Your task to perform on an android device: turn off sleep mode Image 0: 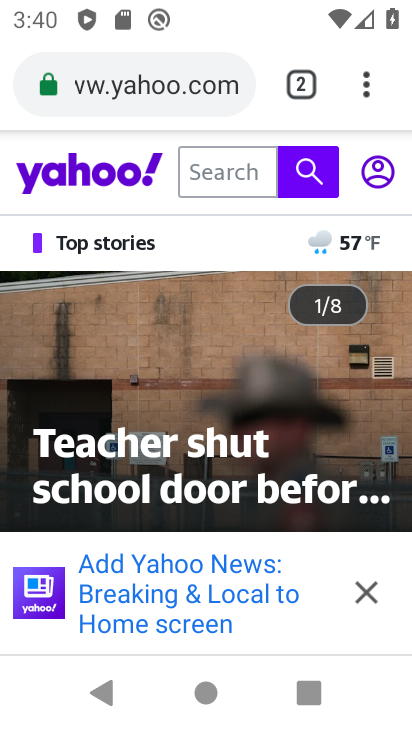
Step 0: press home button
Your task to perform on an android device: turn off sleep mode Image 1: 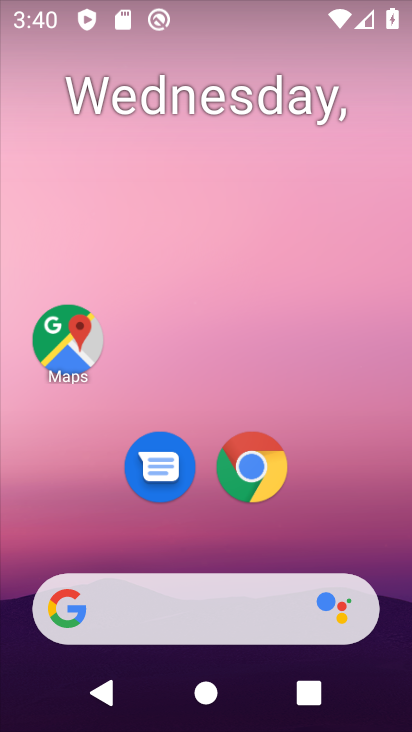
Step 1: drag from (312, 470) to (260, 28)
Your task to perform on an android device: turn off sleep mode Image 2: 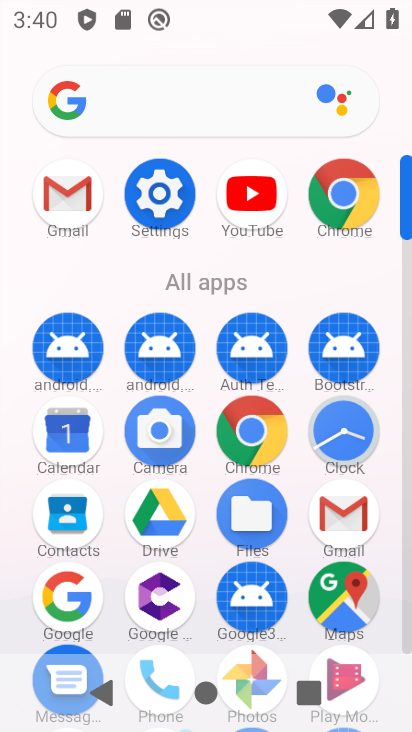
Step 2: click (160, 159)
Your task to perform on an android device: turn off sleep mode Image 3: 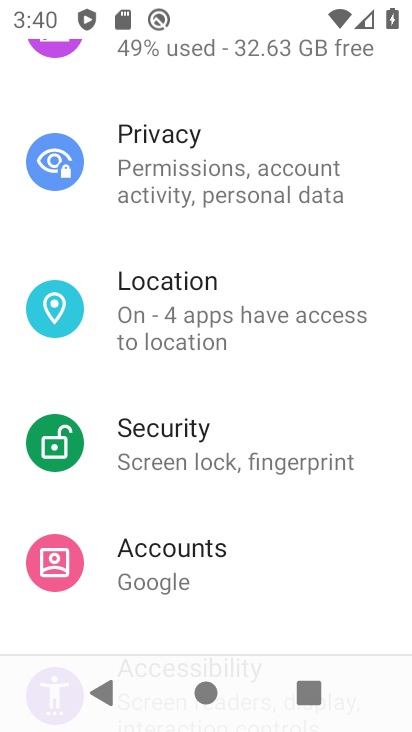
Step 3: drag from (300, 549) to (290, 82)
Your task to perform on an android device: turn off sleep mode Image 4: 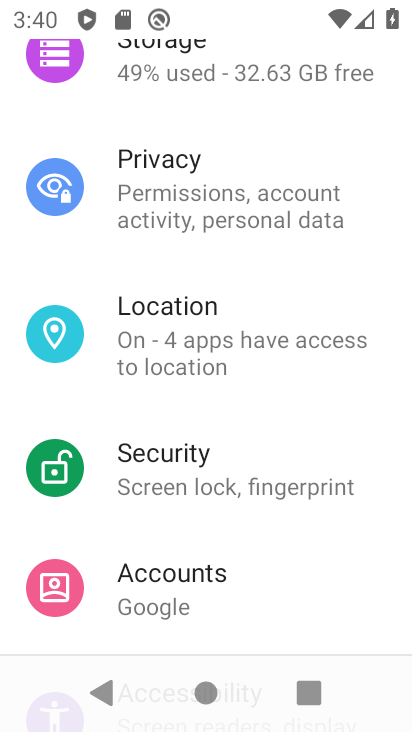
Step 4: drag from (278, 441) to (290, 151)
Your task to perform on an android device: turn off sleep mode Image 5: 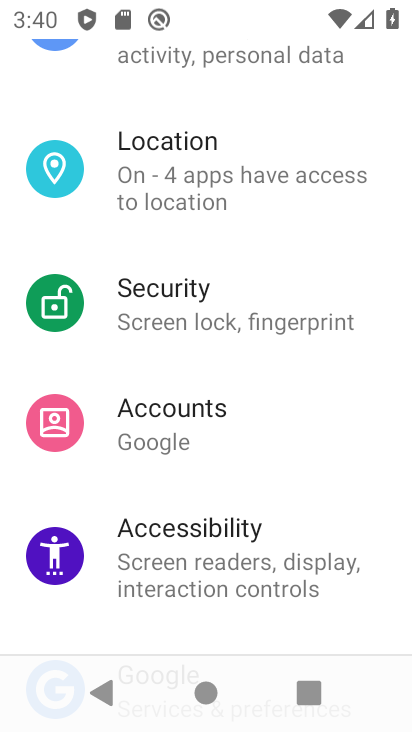
Step 5: drag from (288, 132) to (222, 630)
Your task to perform on an android device: turn off sleep mode Image 6: 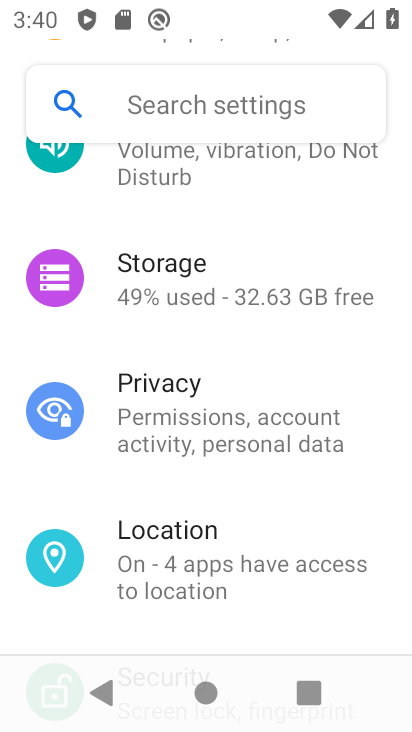
Step 6: drag from (236, 249) to (236, 638)
Your task to perform on an android device: turn off sleep mode Image 7: 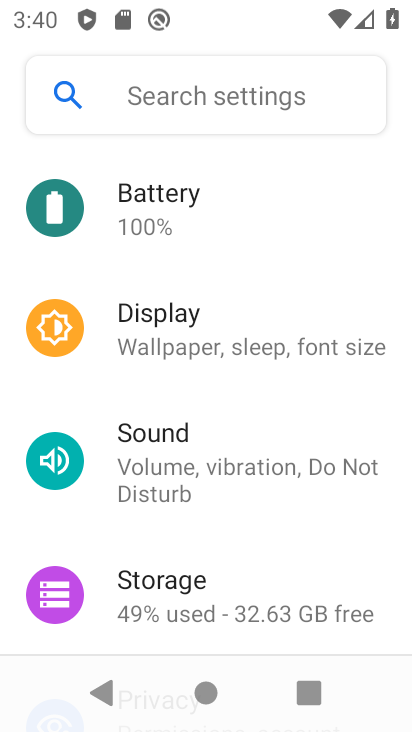
Step 7: click (224, 317)
Your task to perform on an android device: turn off sleep mode Image 8: 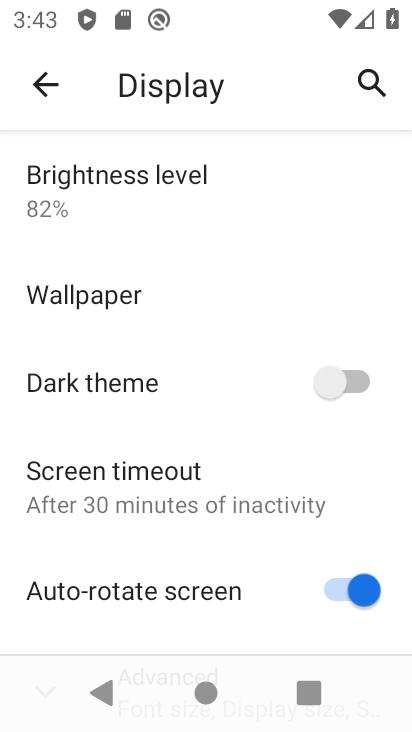
Step 8: task complete